Your task to perform on an android device: turn on translation in the chrome app Image 0: 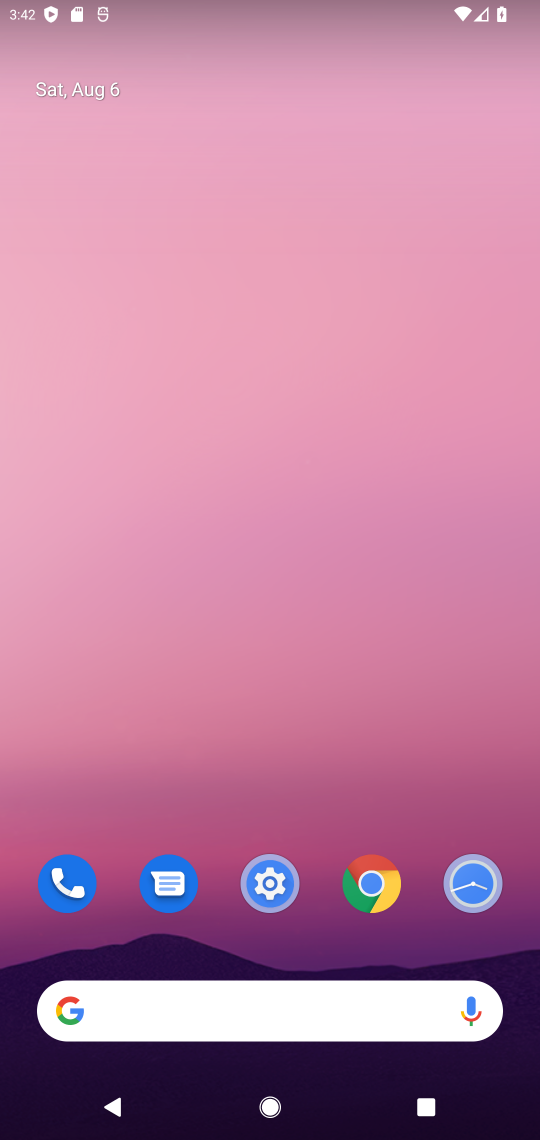
Step 0: drag from (251, 1018) to (388, 68)
Your task to perform on an android device: turn on translation in the chrome app Image 1: 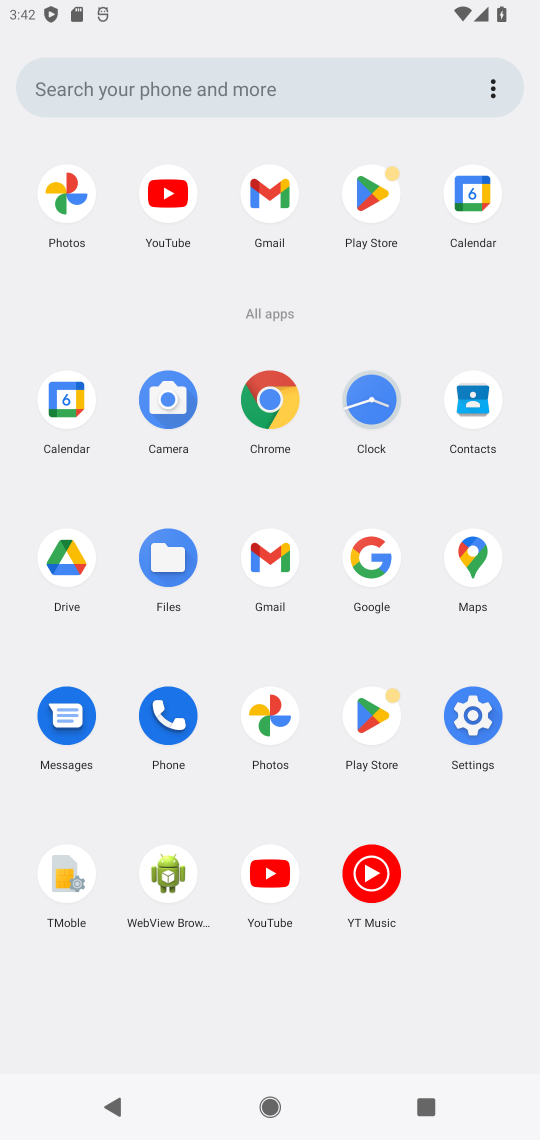
Step 1: click (256, 437)
Your task to perform on an android device: turn on translation in the chrome app Image 2: 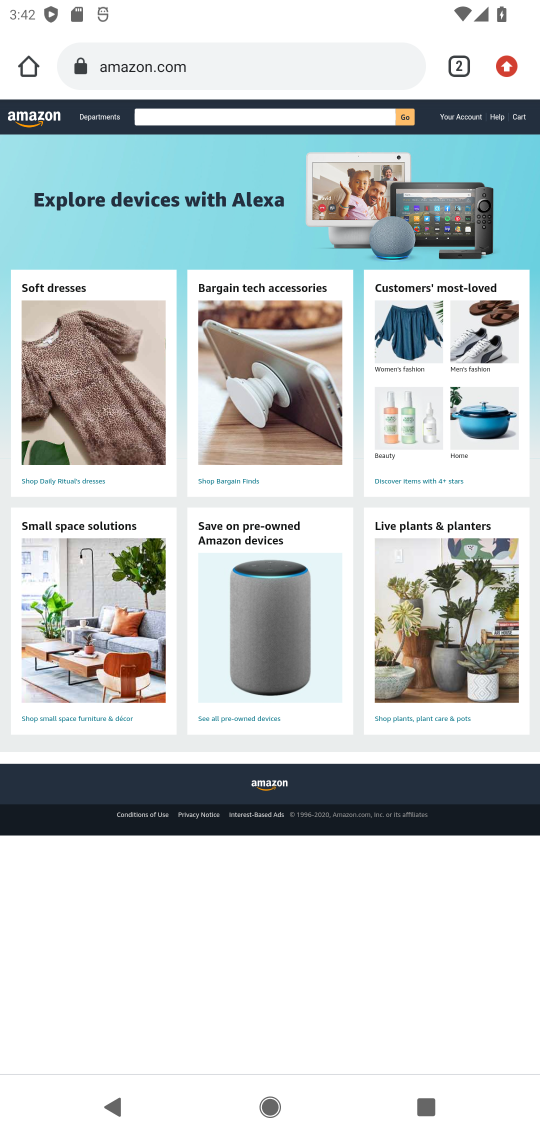
Step 2: click (517, 70)
Your task to perform on an android device: turn on translation in the chrome app Image 3: 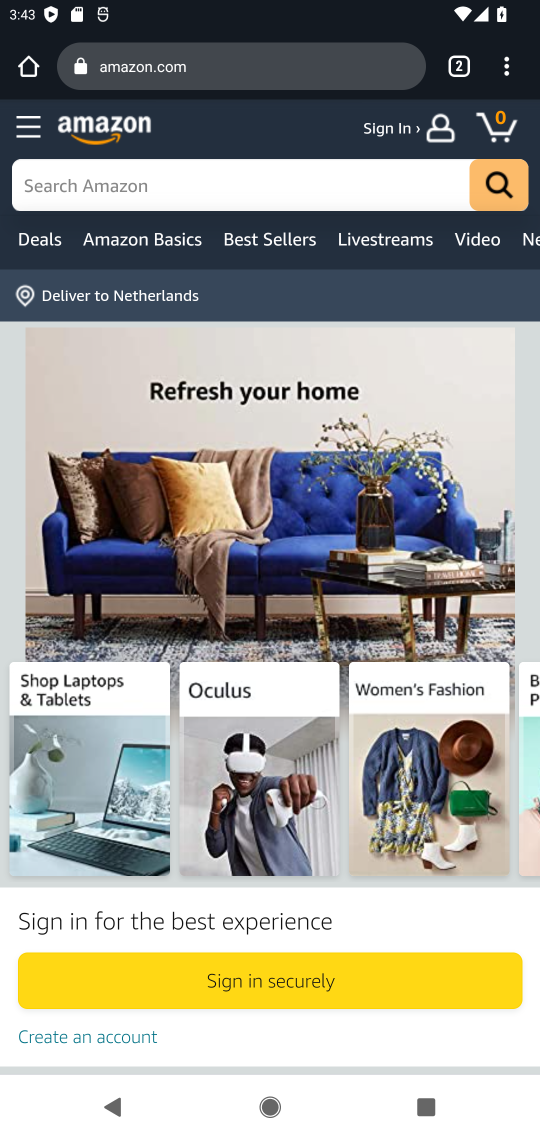
Step 3: click (502, 68)
Your task to perform on an android device: turn on translation in the chrome app Image 4: 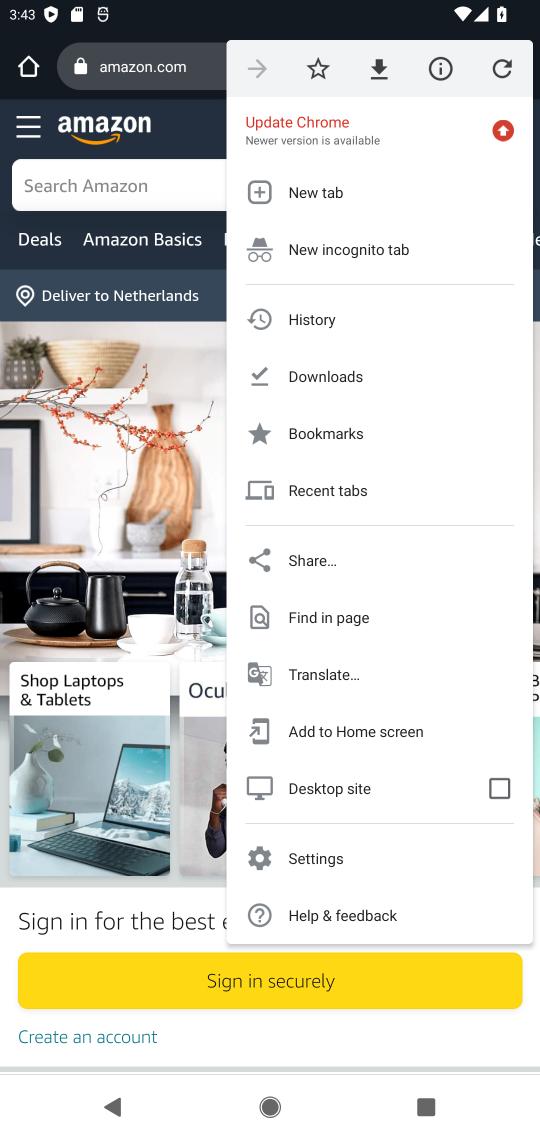
Step 4: click (316, 676)
Your task to perform on an android device: turn on translation in the chrome app Image 5: 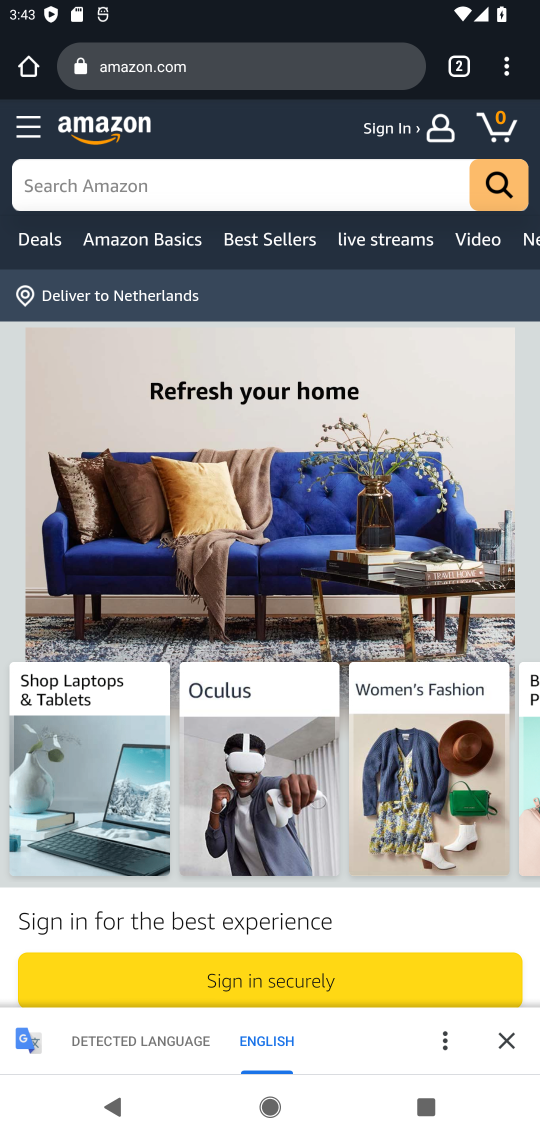
Step 5: click (440, 1037)
Your task to perform on an android device: turn on translation in the chrome app Image 6: 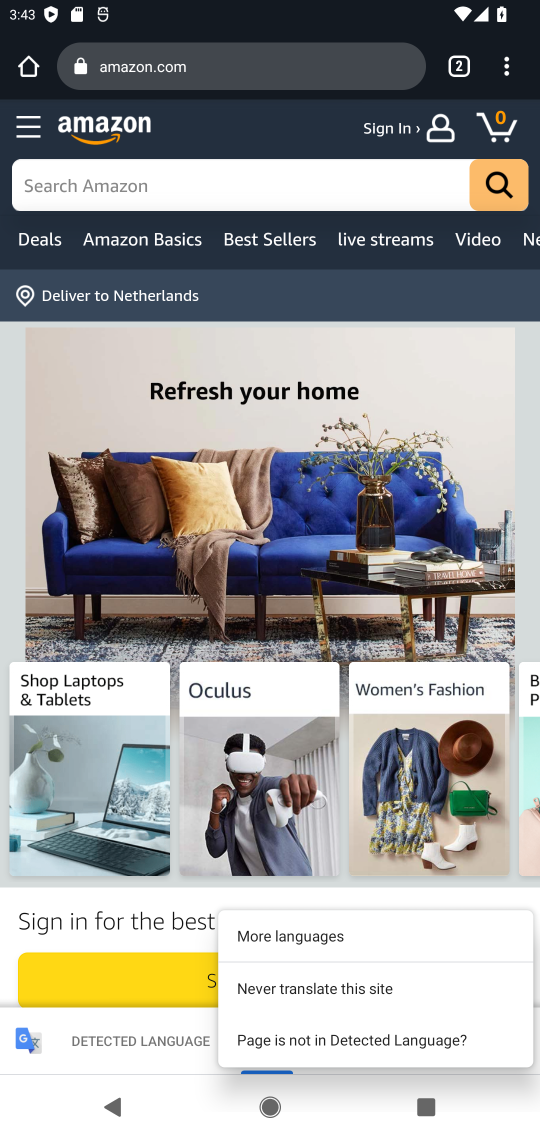
Step 6: click (322, 933)
Your task to perform on an android device: turn on translation in the chrome app Image 7: 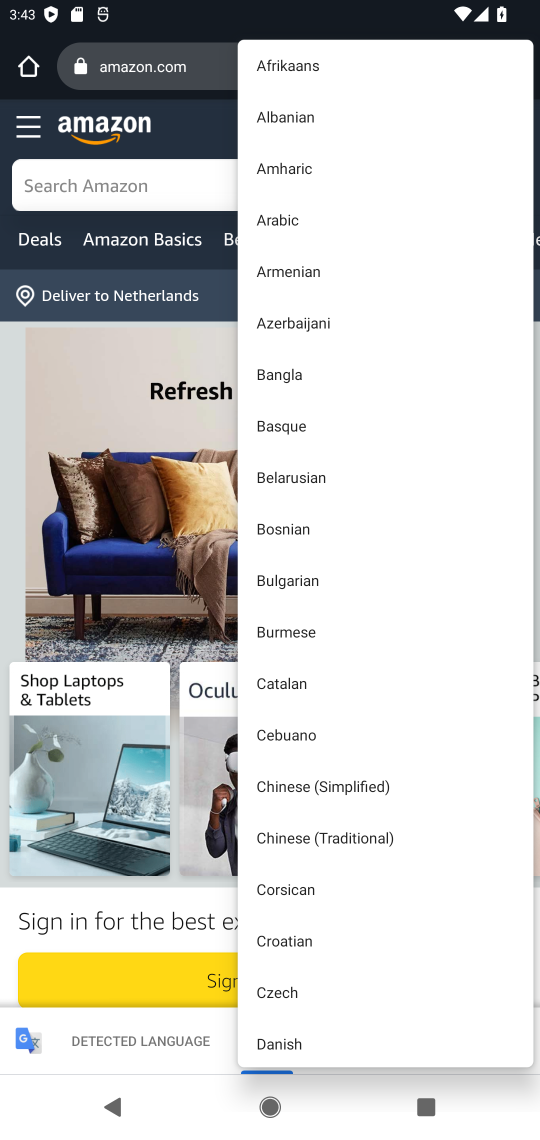
Step 7: drag from (321, 712) to (304, 520)
Your task to perform on an android device: turn on translation in the chrome app Image 8: 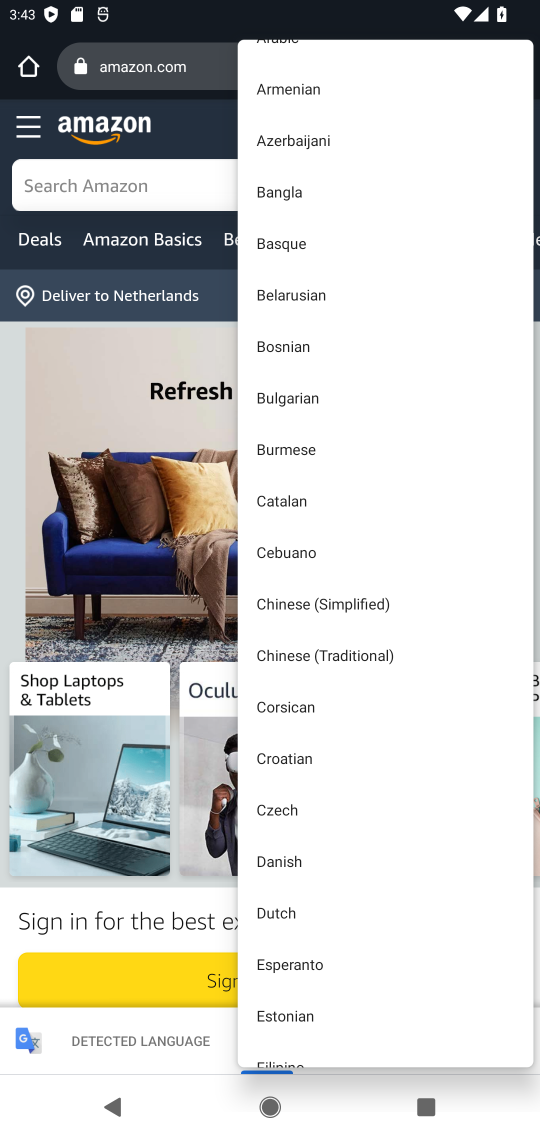
Step 8: drag from (350, 996) to (335, 824)
Your task to perform on an android device: turn on translation in the chrome app Image 9: 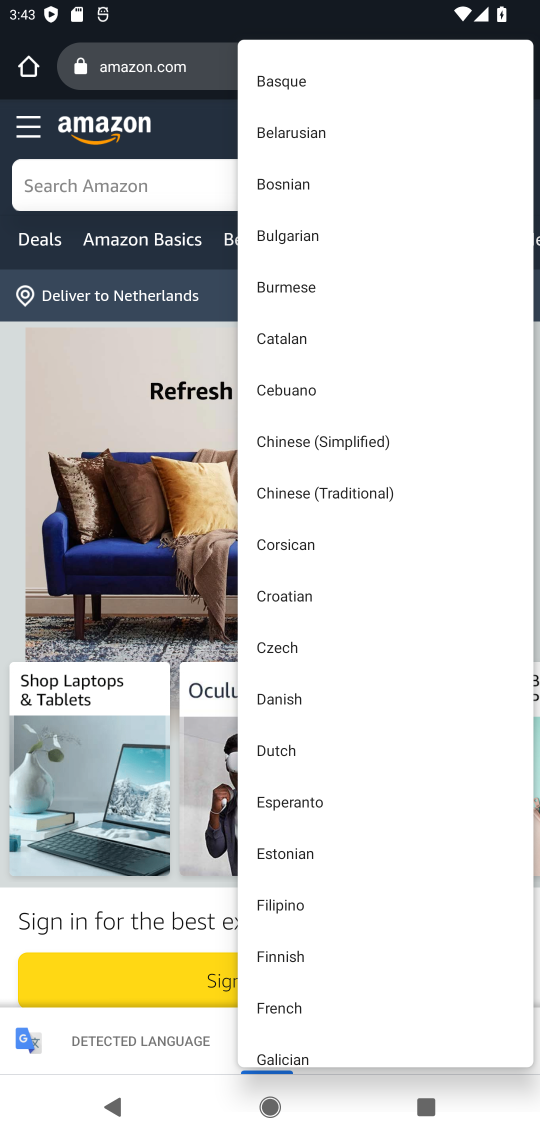
Step 9: click (298, 1013)
Your task to perform on an android device: turn on translation in the chrome app Image 10: 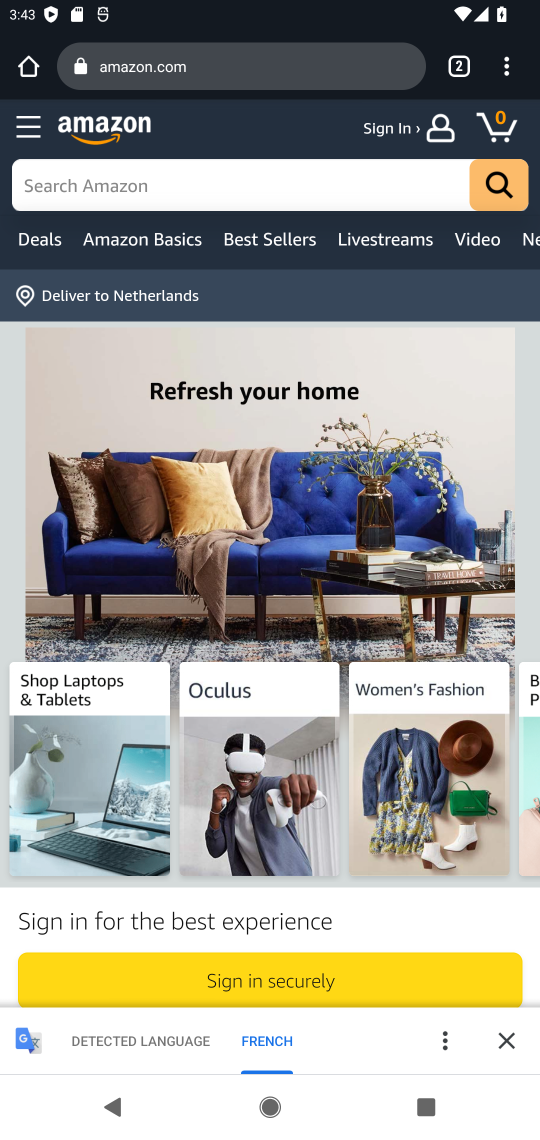
Step 10: task complete